Your task to perform on an android device: Open settings Image 0: 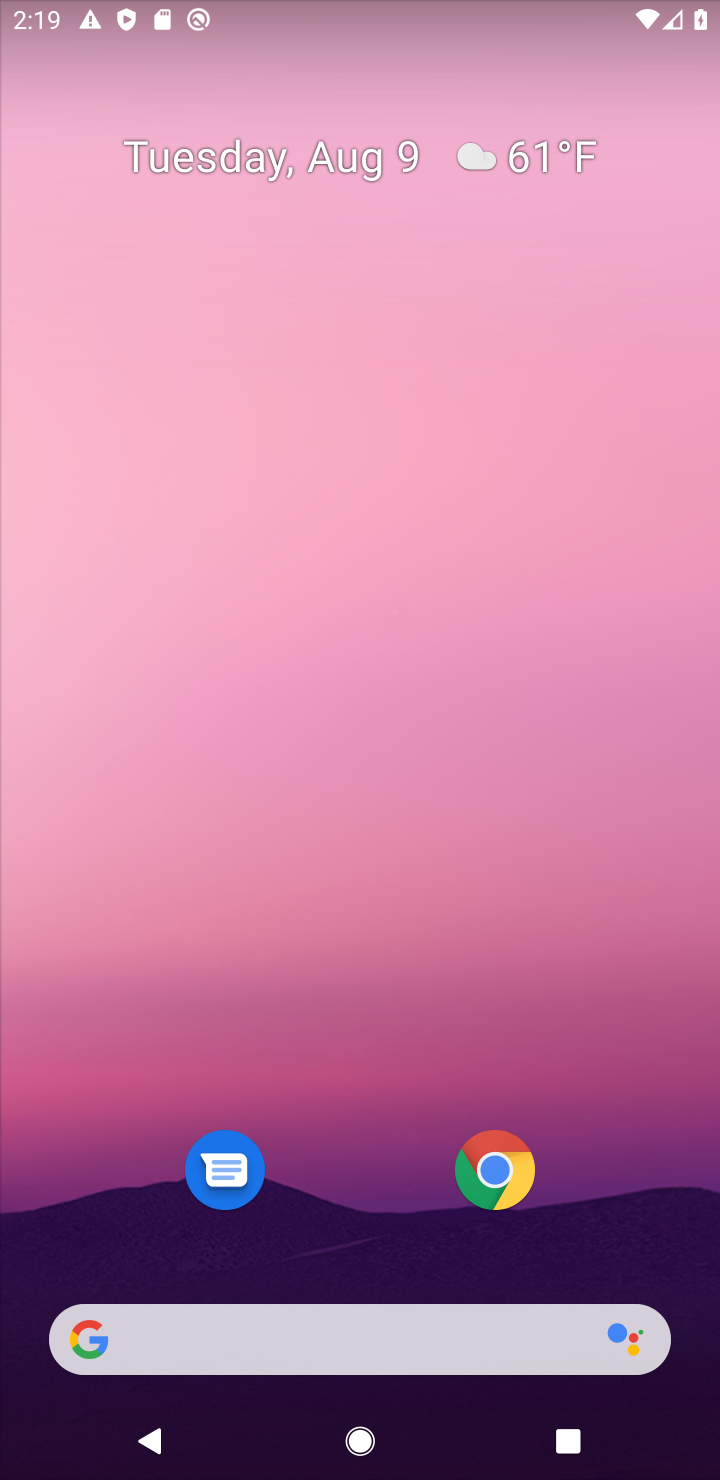
Step 0: drag from (368, 1166) to (424, 9)
Your task to perform on an android device: Open settings Image 1: 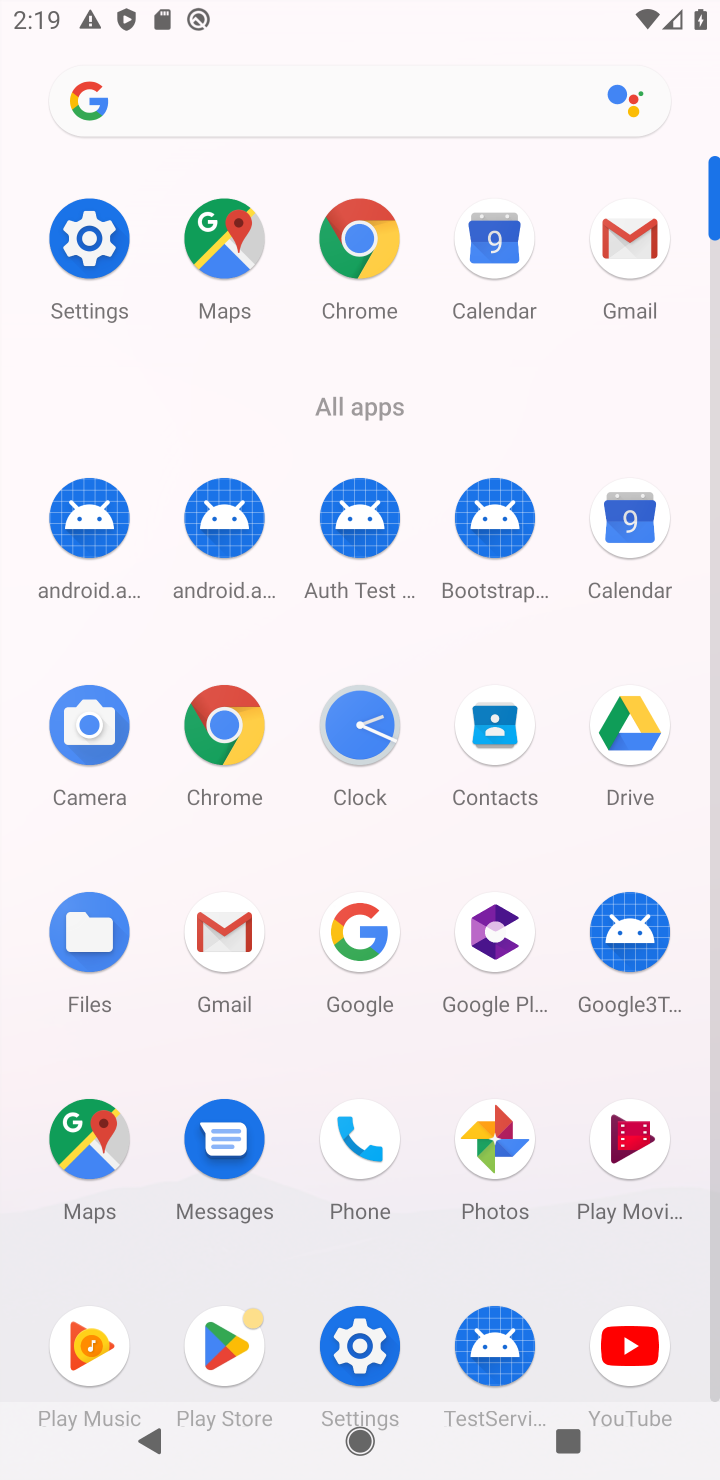
Step 1: drag from (307, 1108) to (305, 545)
Your task to perform on an android device: Open settings Image 2: 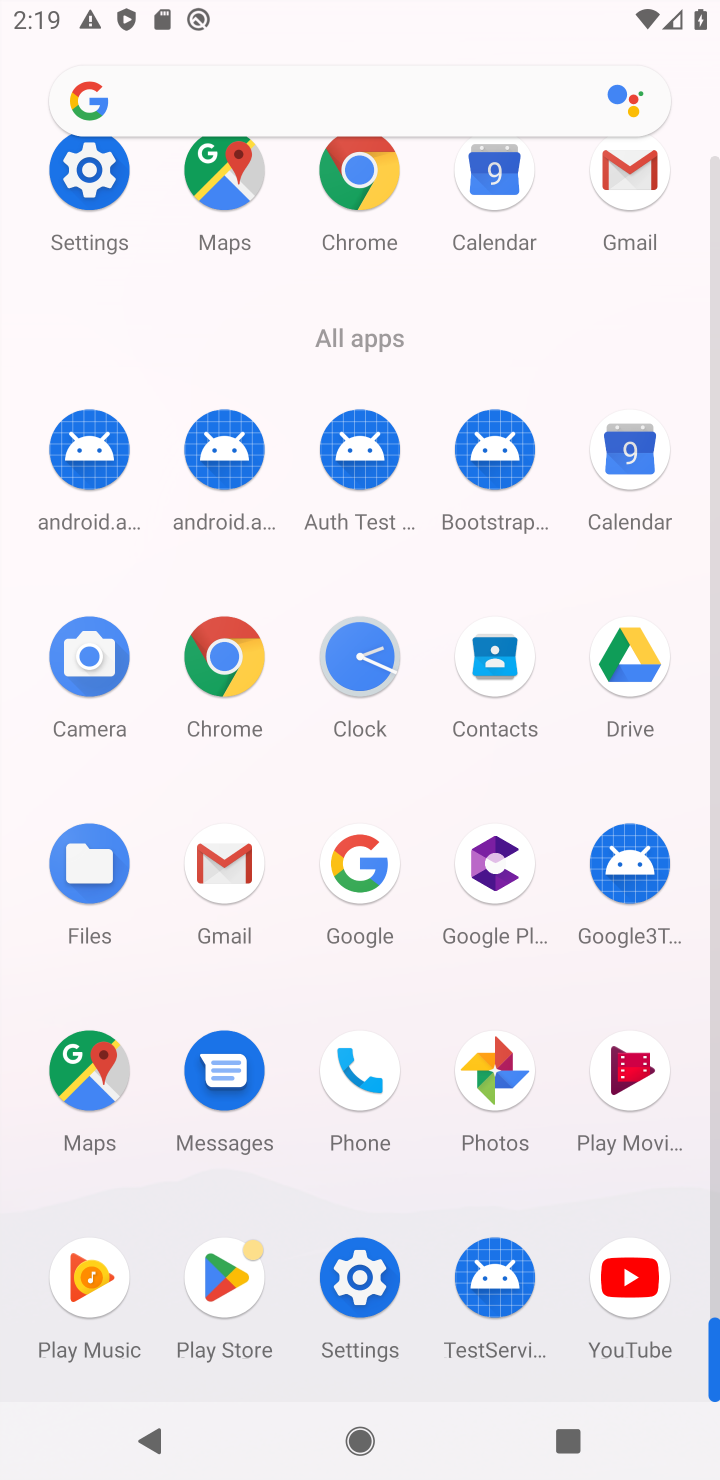
Step 2: click (368, 1296)
Your task to perform on an android device: Open settings Image 3: 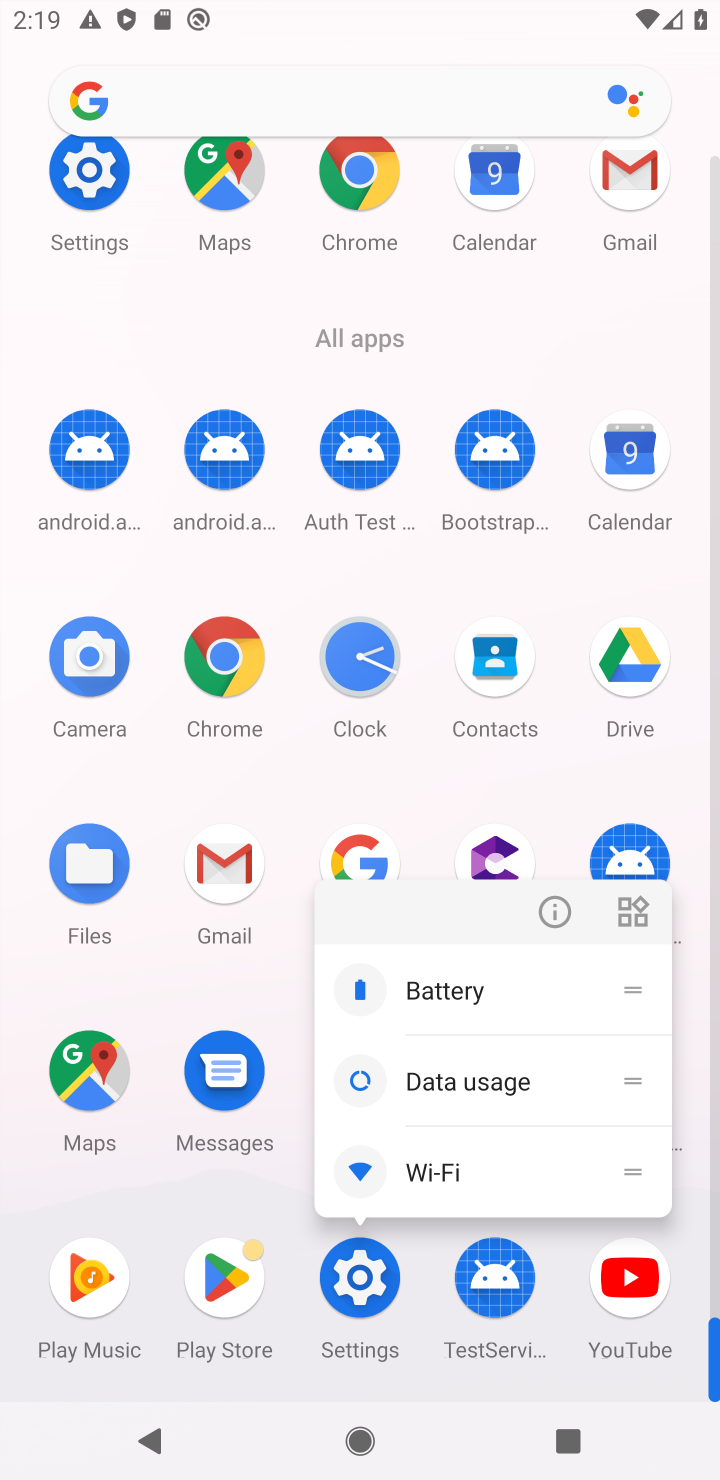
Step 3: click (366, 1302)
Your task to perform on an android device: Open settings Image 4: 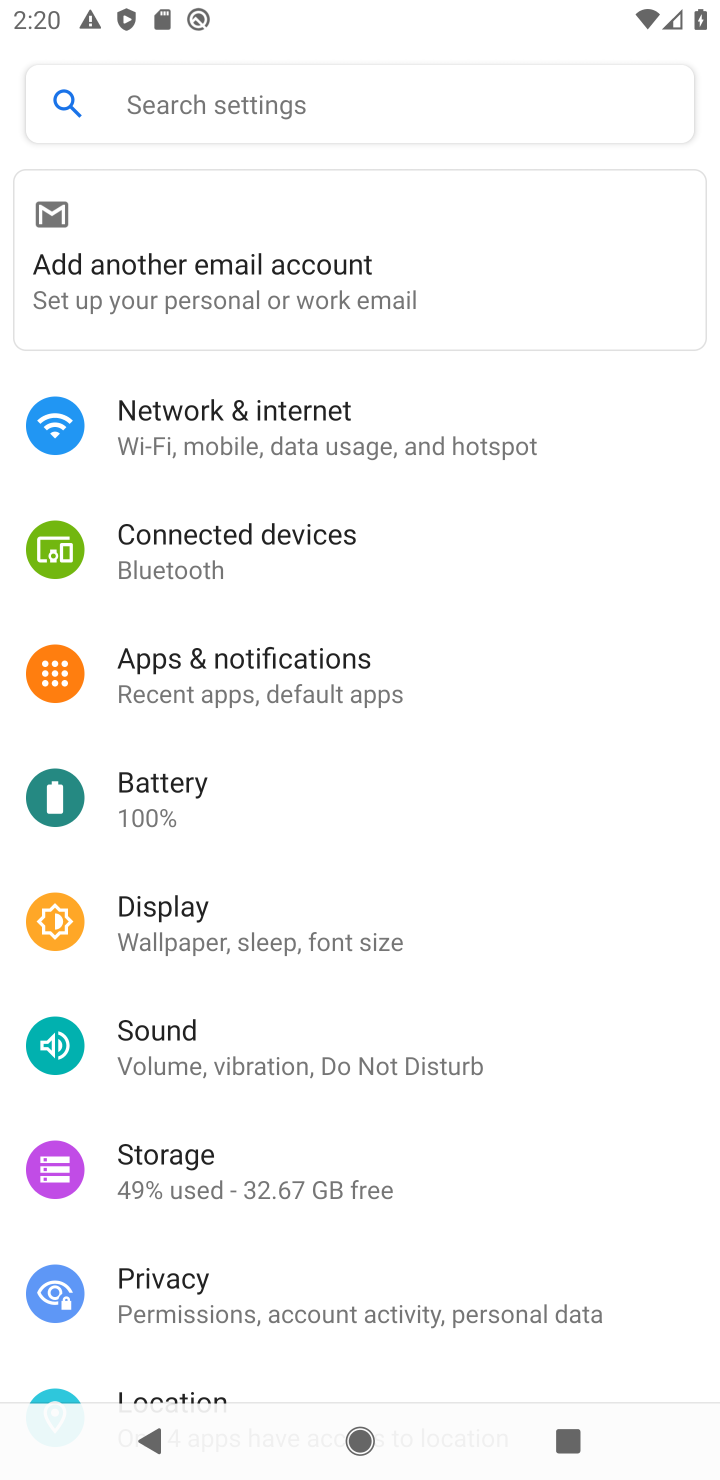
Step 4: task complete